Your task to perform on an android device: Open the stopwatch Image 0: 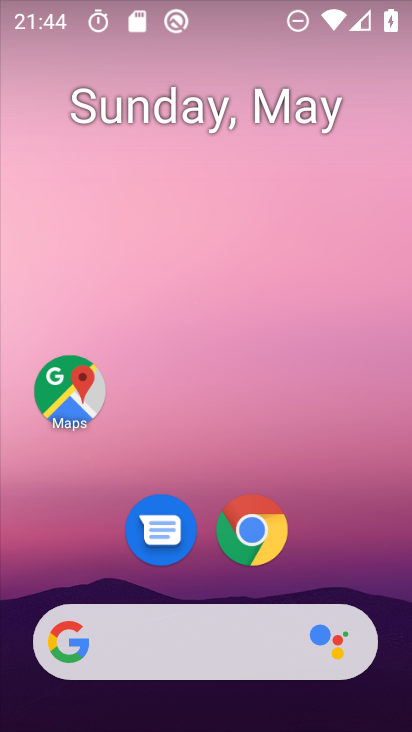
Step 0: drag from (263, 685) to (162, 43)
Your task to perform on an android device: Open the stopwatch Image 1: 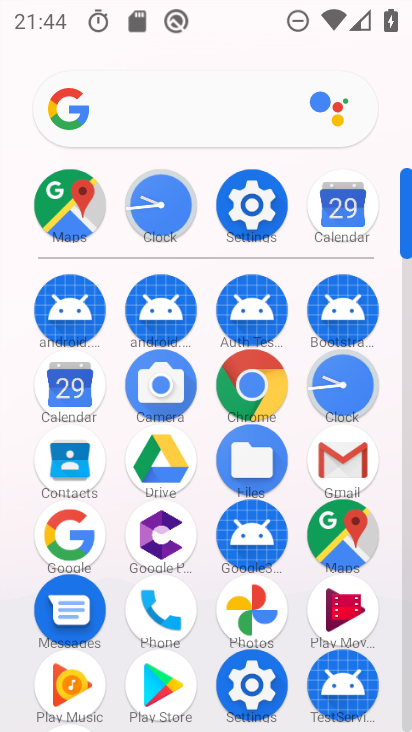
Step 1: click (170, 214)
Your task to perform on an android device: Open the stopwatch Image 2: 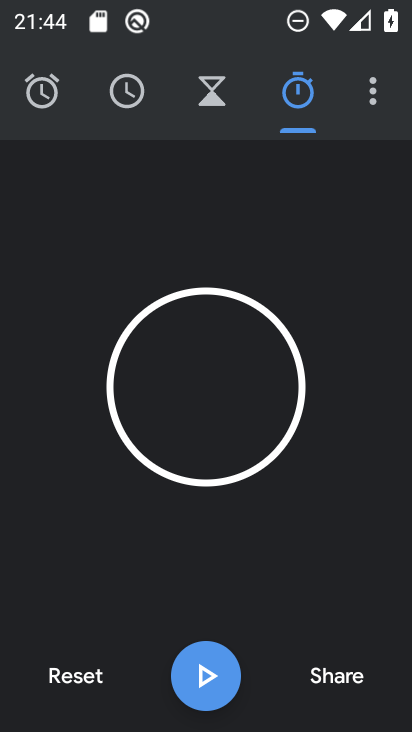
Step 2: click (217, 685)
Your task to perform on an android device: Open the stopwatch Image 3: 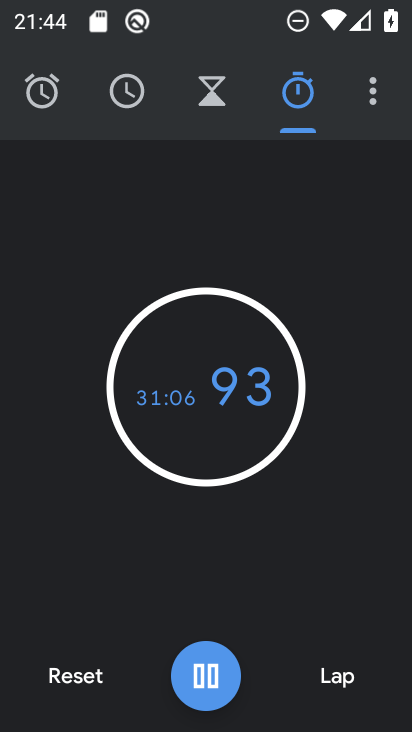
Step 3: click (217, 685)
Your task to perform on an android device: Open the stopwatch Image 4: 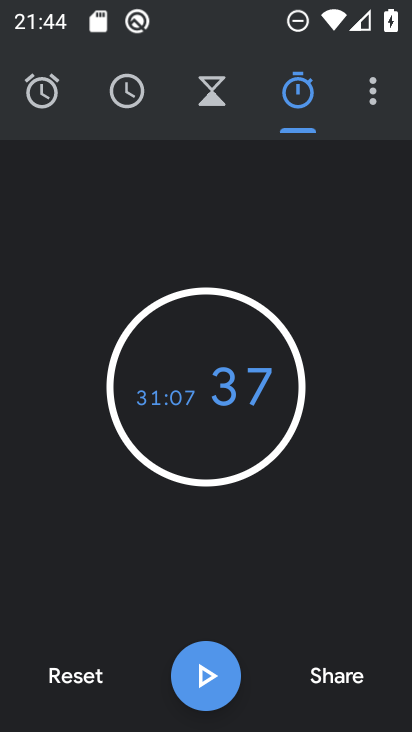
Step 4: task complete